Your task to perform on an android device: toggle location history Image 0: 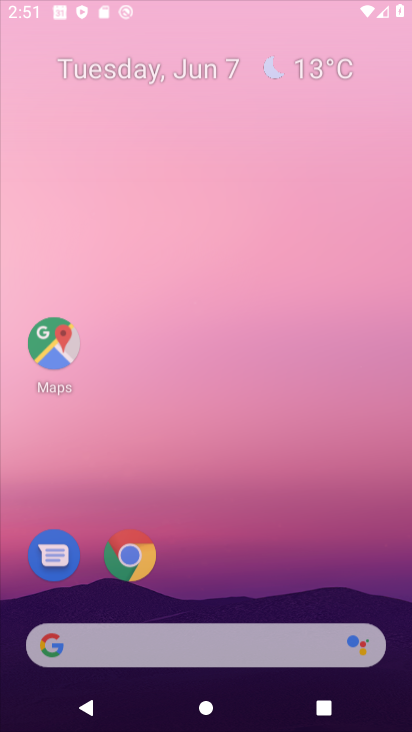
Step 0: press home button
Your task to perform on an android device: toggle location history Image 1: 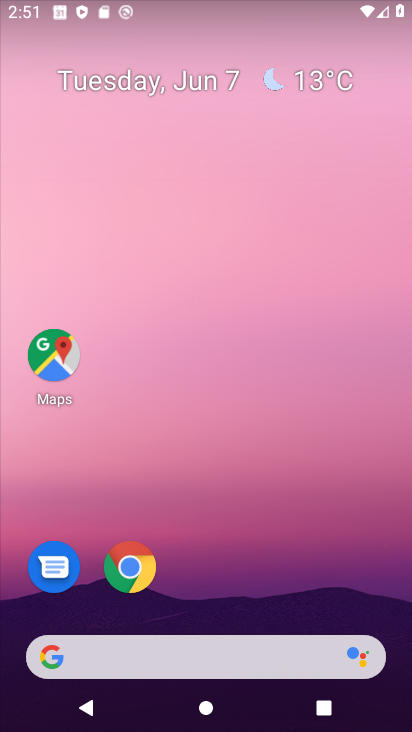
Step 1: drag from (257, 603) to (218, 130)
Your task to perform on an android device: toggle location history Image 2: 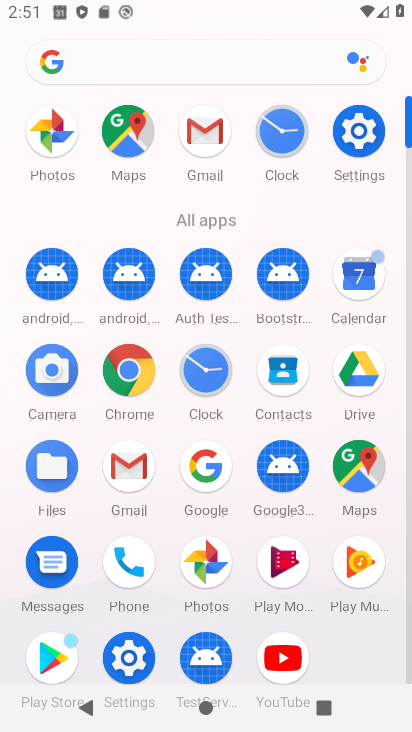
Step 2: drag from (215, 591) to (219, 268)
Your task to perform on an android device: toggle location history Image 3: 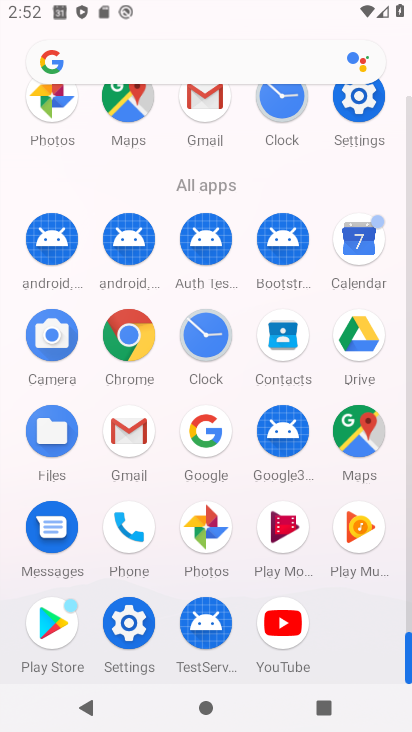
Step 3: click (340, 430)
Your task to perform on an android device: toggle location history Image 4: 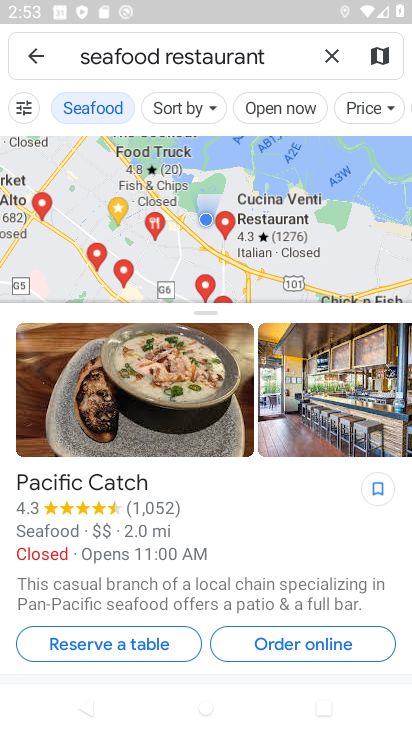
Step 4: click (28, 65)
Your task to perform on an android device: toggle location history Image 5: 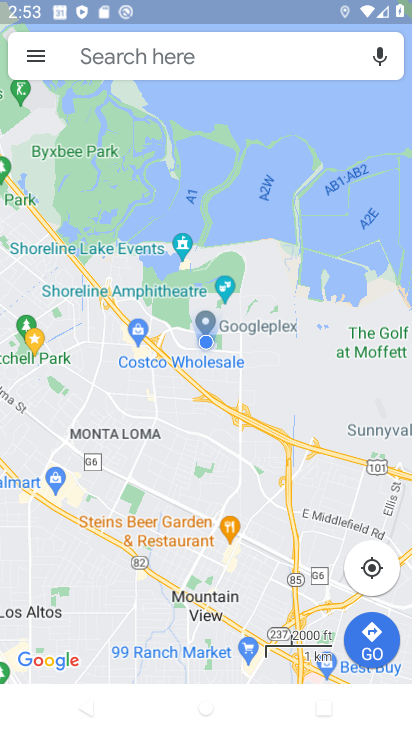
Step 5: click (28, 65)
Your task to perform on an android device: toggle location history Image 6: 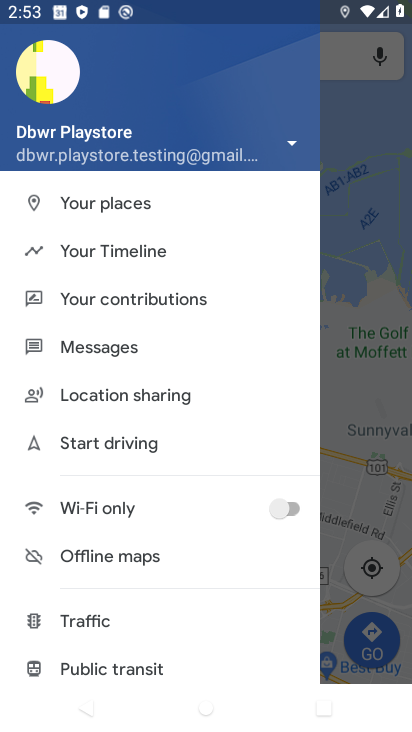
Step 6: drag from (120, 533) to (158, 366)
Your task to perform on an android device: toggle location history Image 7: 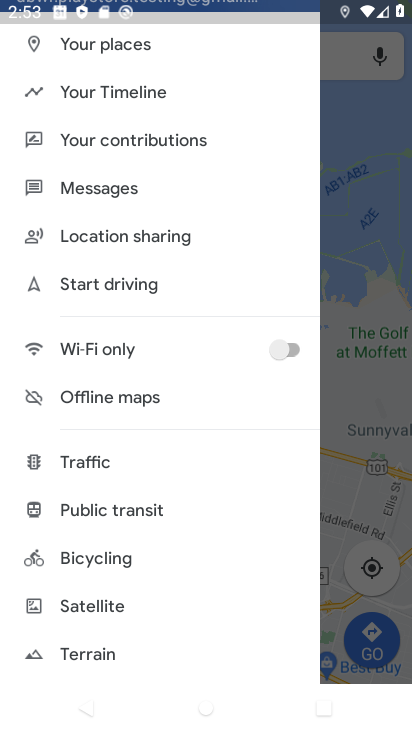
Step 7: click (119, 99)
Your task to perform on an android device: toggle location history Image 8: 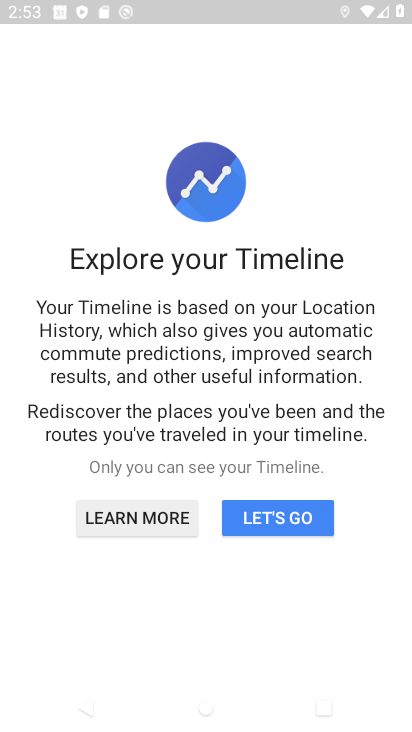
Step 8: click (292, 508)
Your task to perform on an android device: toggle location history Image 9: 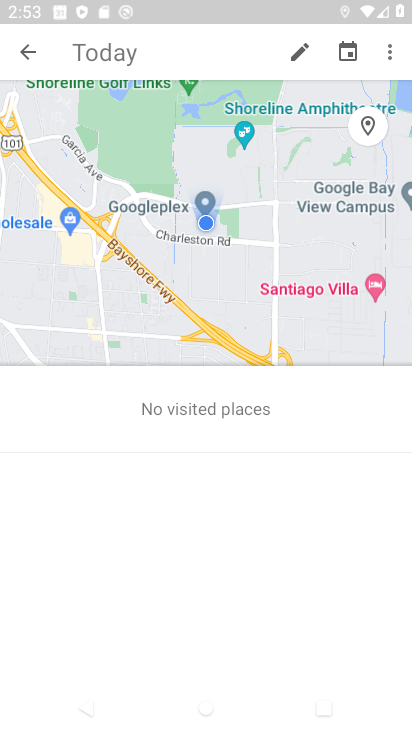
Step 9: click (391, 55)
Your task to perform on an android device: toggle location history Image 10: 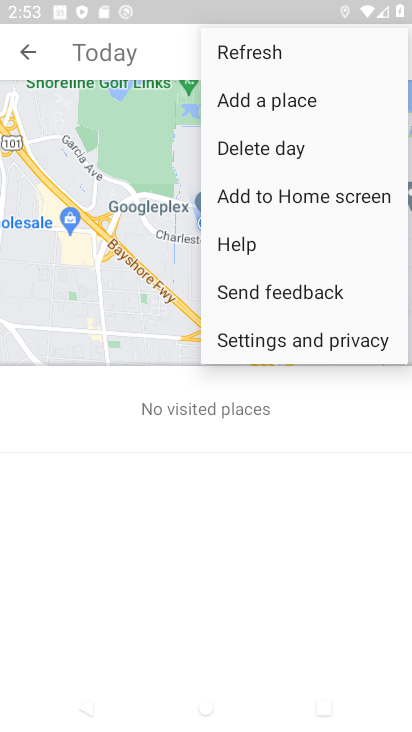
Step 10: click (296, 336)
Your task to perform on an android device: toggle location history Image 11: 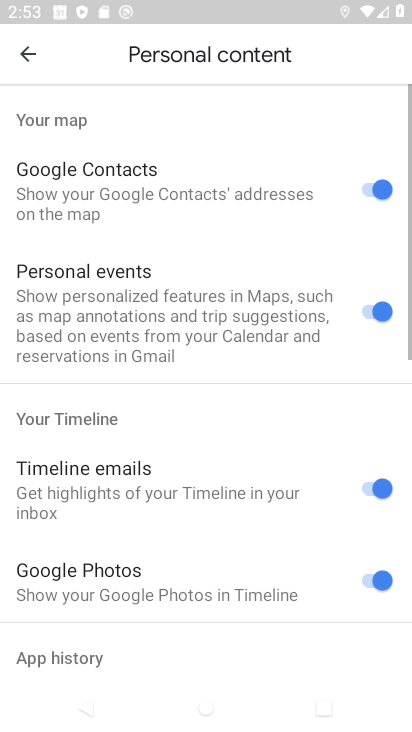
Step 11: drag from (163, 618) to (359, 255)
Your task to perform on an android device: toggle location history Image 12: 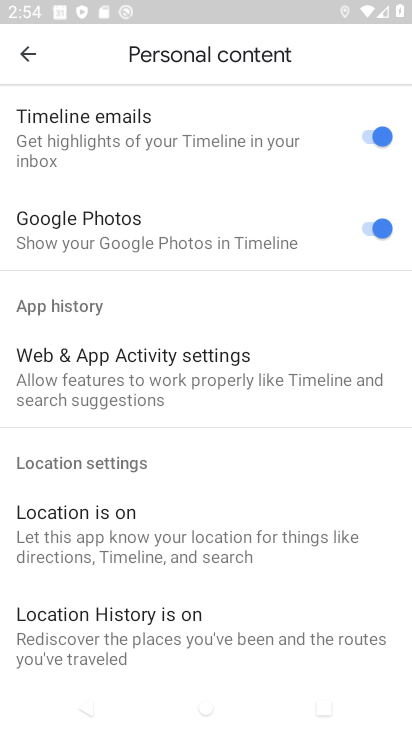
Step 12: click (83, 630)
Your task to perform on an android device: toggle location history Image 13: 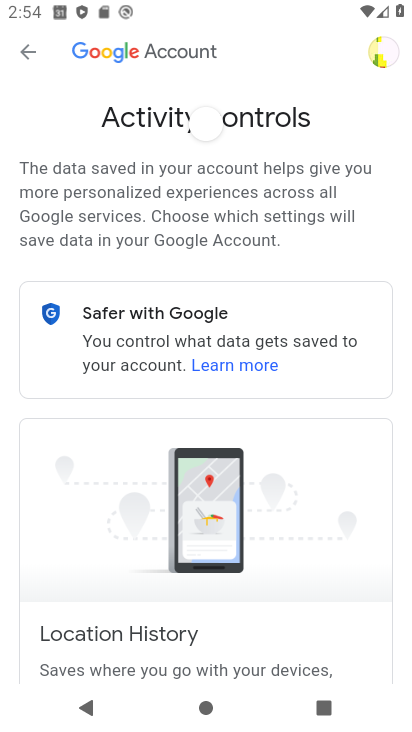
Step 13: drag from (134, 609) to (145, 408)
Your task to perform on an android device: toggle location history Image 14: 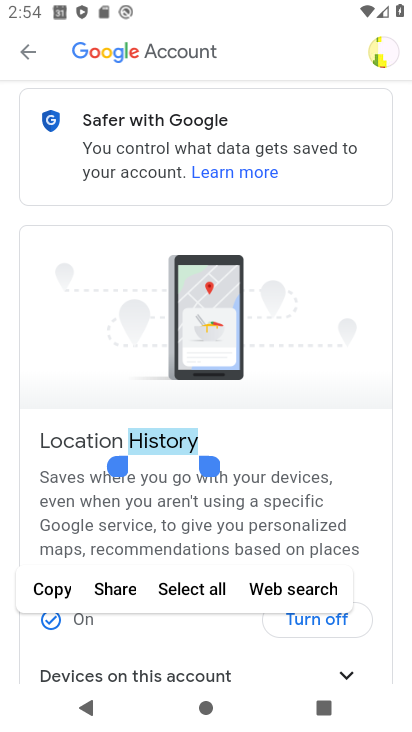
Step 14: click (237, 384)
Your task to perform on an android device: toggle location history Image 15: 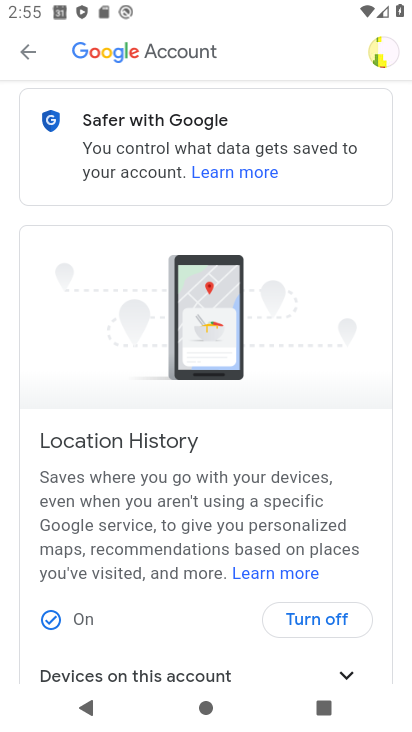
Step 15: click (280, 620)
Your task to perform on an android device: toggle location history Image 16: 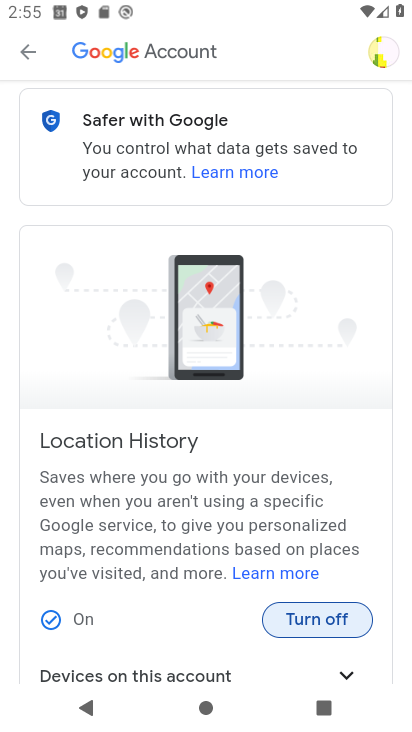
Step 16: click (305, 622)
Your task to perform on an android device: toggle location history Image 17: 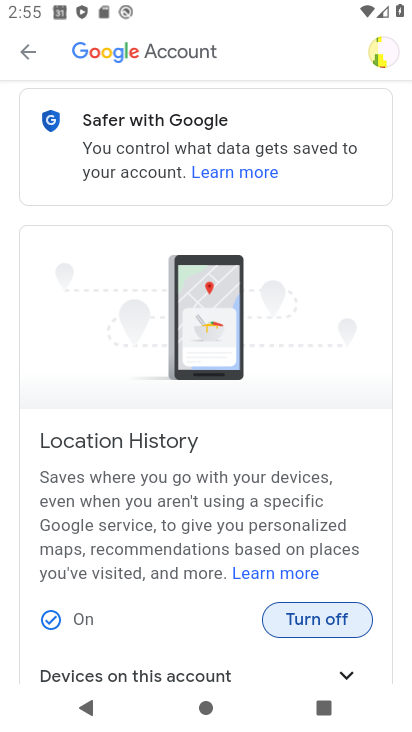
Step 17: click (305, 622)
Your task to perform on an android device: toggle location history Image 18: 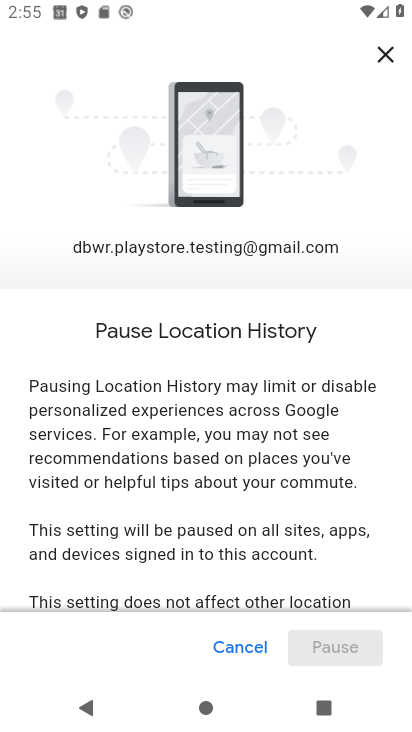
Step 18: drag from (325, 590) to (313, 151)
Your task to perform on an android device: toggle location history Image 19: 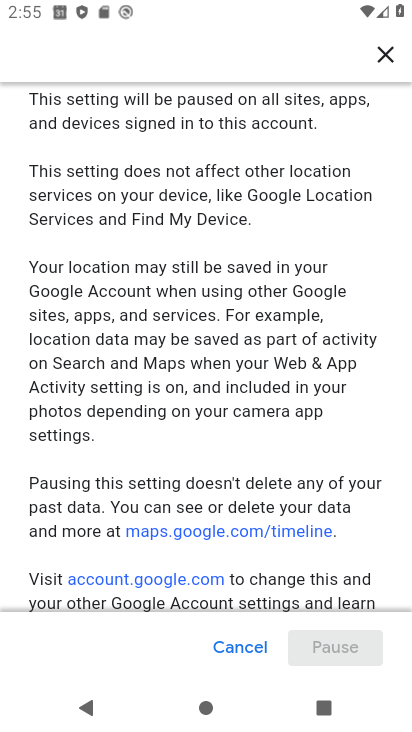
Step 19: drag from (357, 607) to (347, 238)
Your task to perform on an android device: toggle location history Image 20: 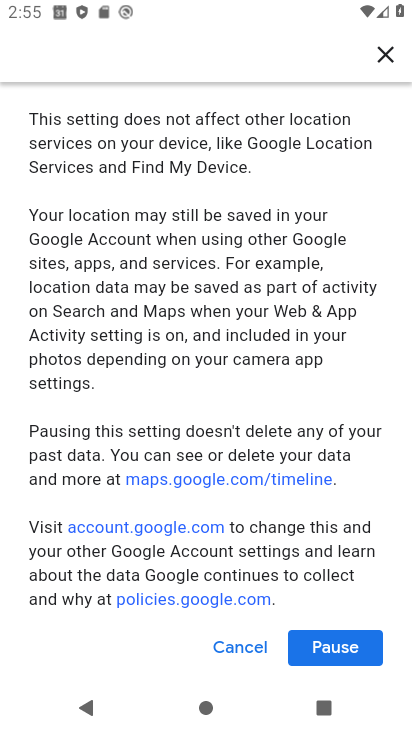
Step 20: click (335, 638)
Your task to perform on an android device: toggle location history Image 21: 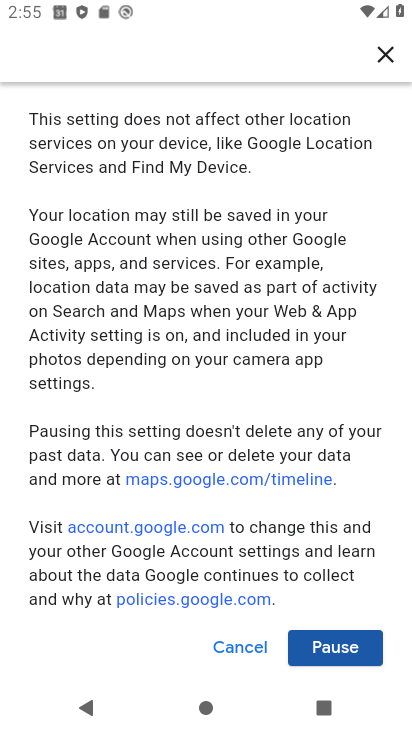
Step 21: click (342, 647)
Your task to perform on an android device: toggle location history Image 22: 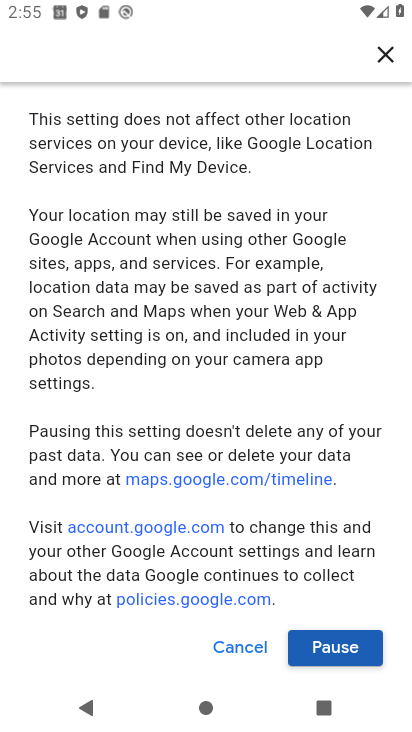
Step 22: click (342, 647)
Your task to perform on an android device: toggle location history Image 23: 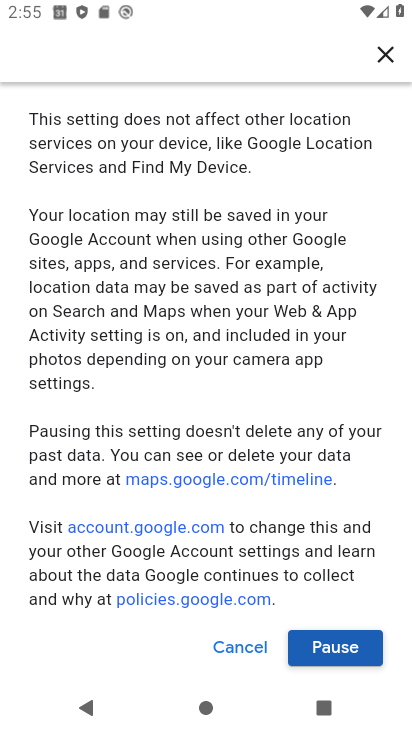
Step 23: click (342, 647)
Your task to perform on an android device: toggle location history Image 24: 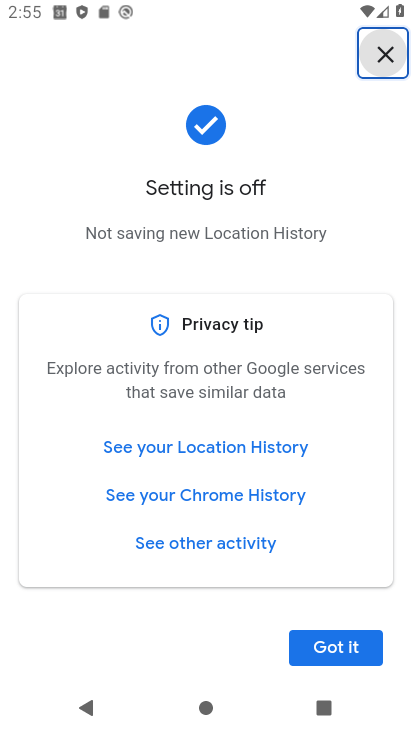
Step 24: click (339, 645)
Your task to perform on an android device: toggle location history Image 25: 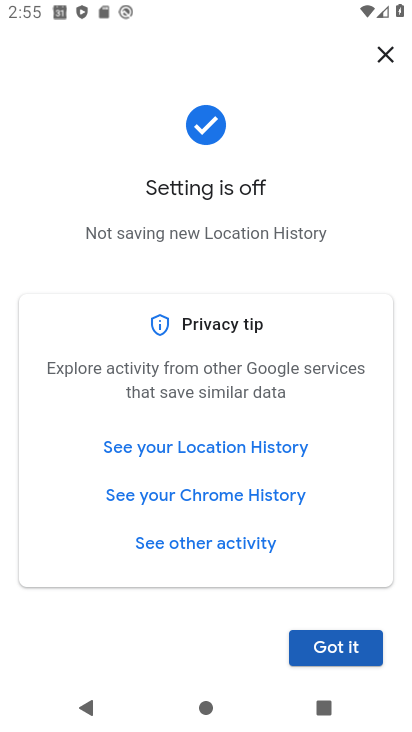
Step 25: click (326, 638)
Your task to perform on an android device: toggle location history Image 26: 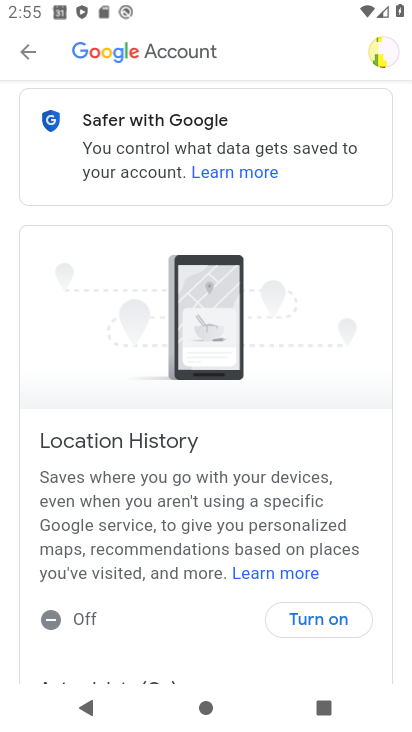
Step 26: task complete